Your task to perform on an android device: Open calendar and show me the second week of next month Image 0: 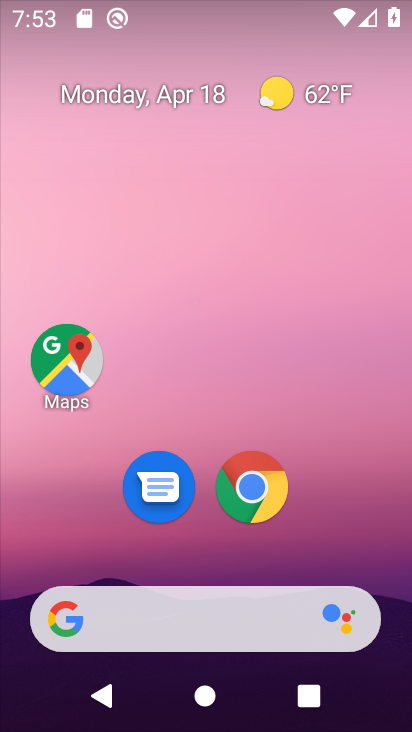
Step 0: press home button
Your task to perform on an android device: Open calendar and show me the second week of next month Image 1: 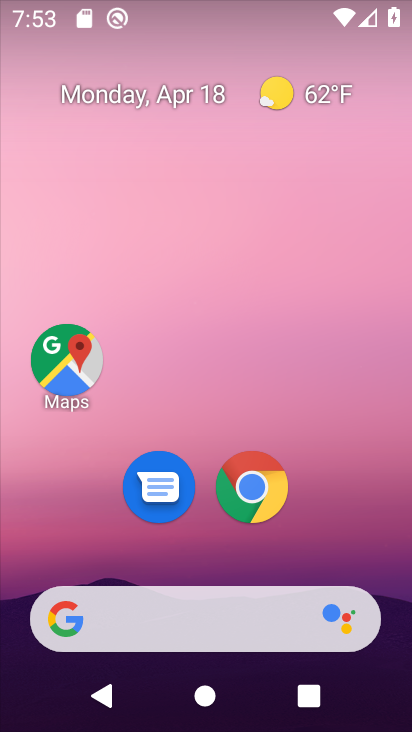
Step 1: drag from (214, 531) to (266, 107)
Your task to perform on an android device: Open calendar and show me the second week of next month Image 2: 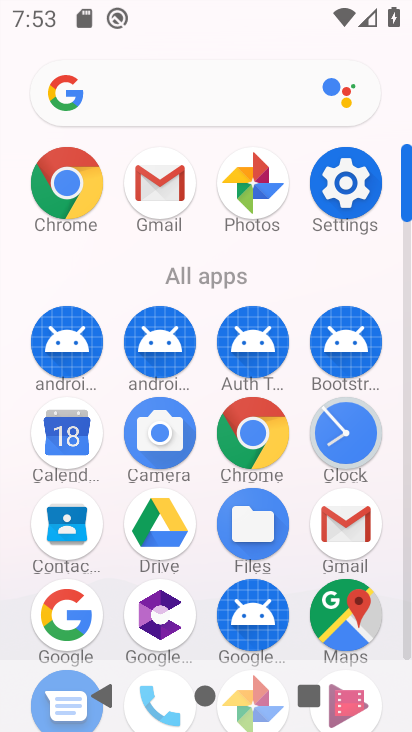
Step 2: click (70, 434)
Your task to perform on an android device: Open calendar and show me the second week of next month Image 3: 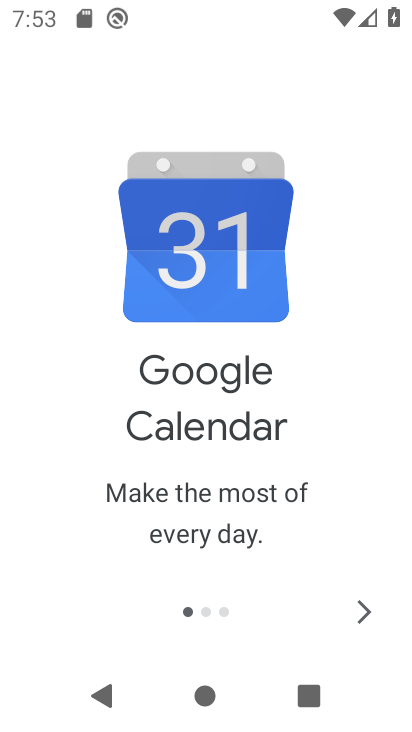
Step 3: click (356, 609)
Your task to perform on an android device: Open calendar and show me the second week of next month Image 4: 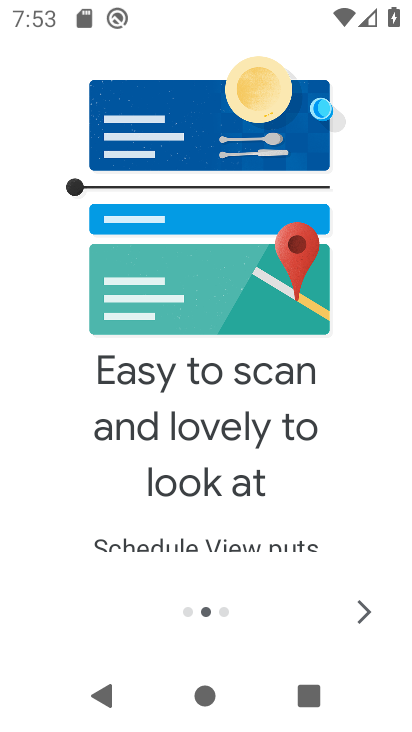
Step 4: click (356, 609)
Your task to perform on an android device: Open calendar and show me the second week of next month Image 5: 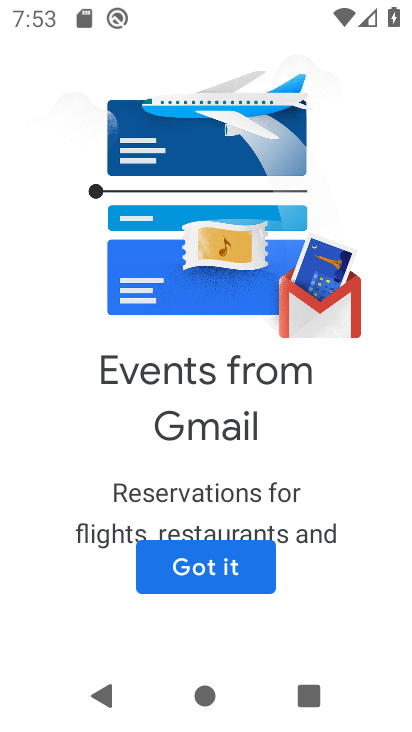
Step 5: click (218, 565)
Your task to perform on an android device: Open calendar and show me the second week of next month Image 6: 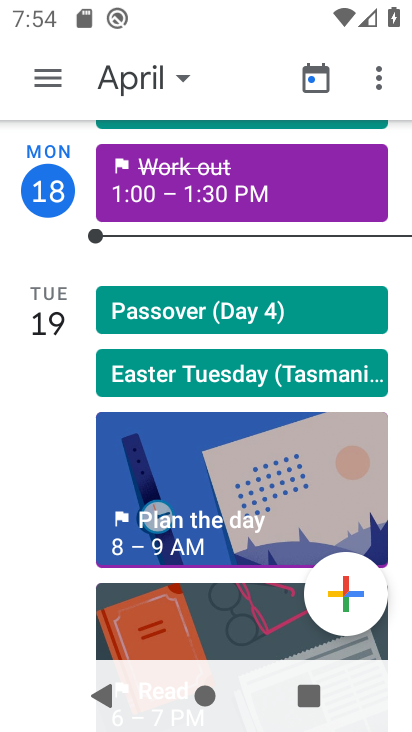
Step 6: click (43, 72)
Your task to perform on an android device: Open calendar and show me the second week of next month Image 7: 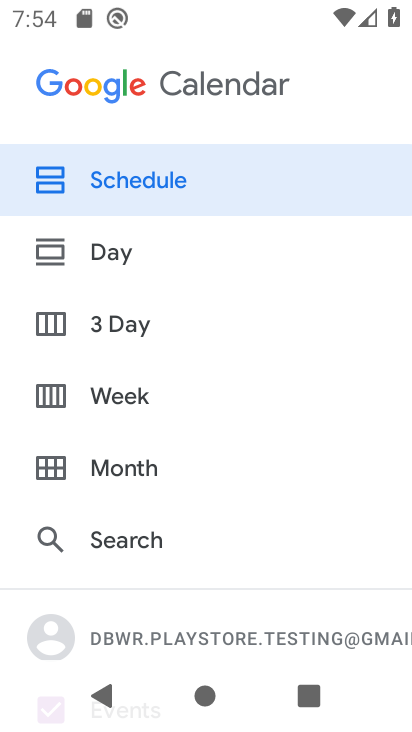
Step 7: click (74, 392)
Your task to perform on an android device: Open calendar and show me the second week of next month Image 8: 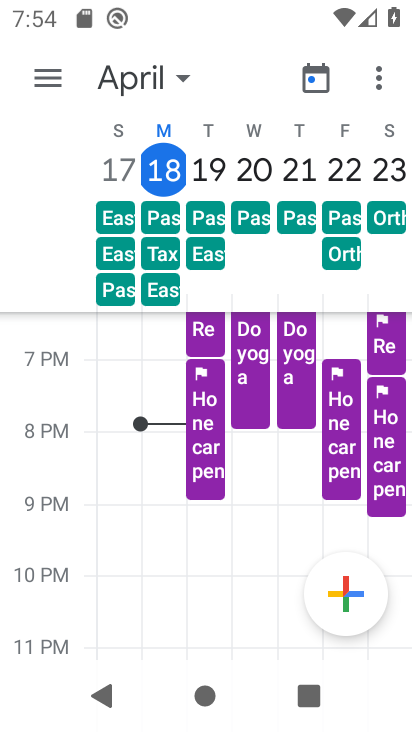
Step 8: drag from (394, 165) to (74, 140)
Your task to perform on an android device: Open calendar and show me the second week of next month Image 9: 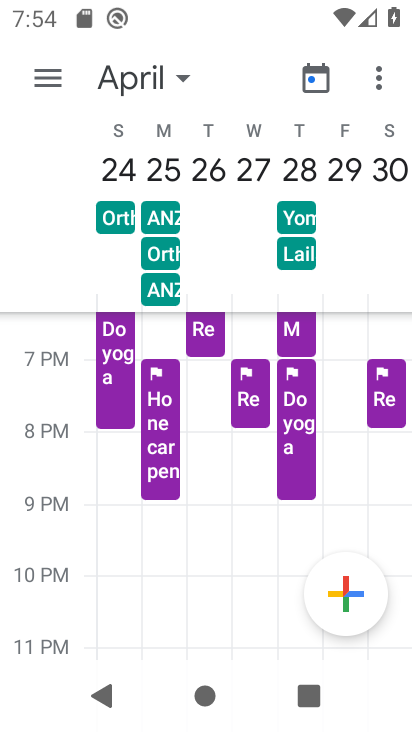
Step 9: drag from (382, 162) to (39, 149)
Your task to perform on an android device: Open calendar and show me the second week of next month Image 10: 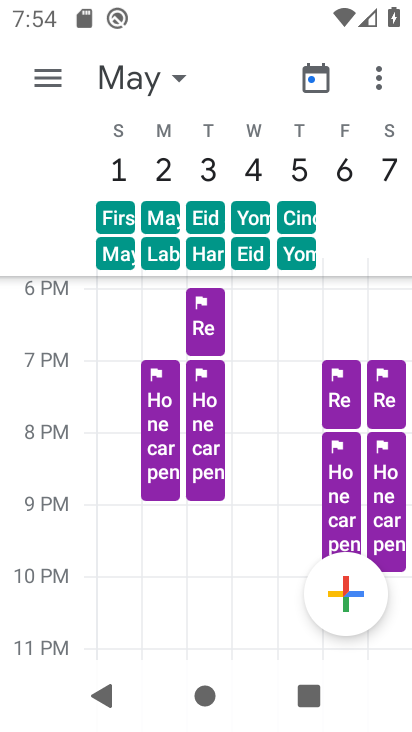
Step 10: drag from (381, 166) to (85, 166)
Your task to perform on an android device: Open calendar and show me the second week of next month Image 11: 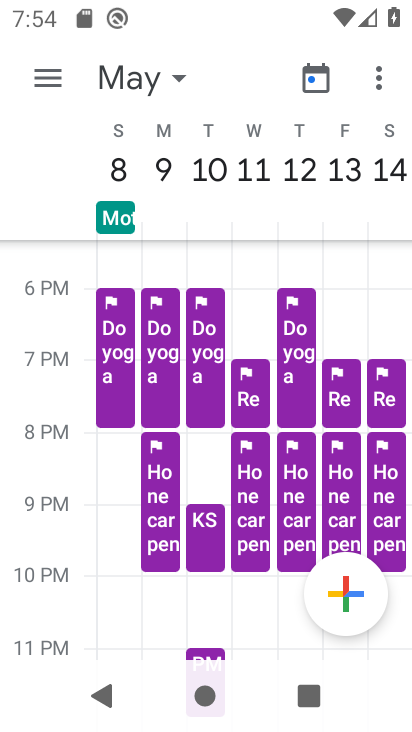
Step 11: click (118, 165)
Your task to perform on an android device: Open calendar and show me the second week of next month Image 12: 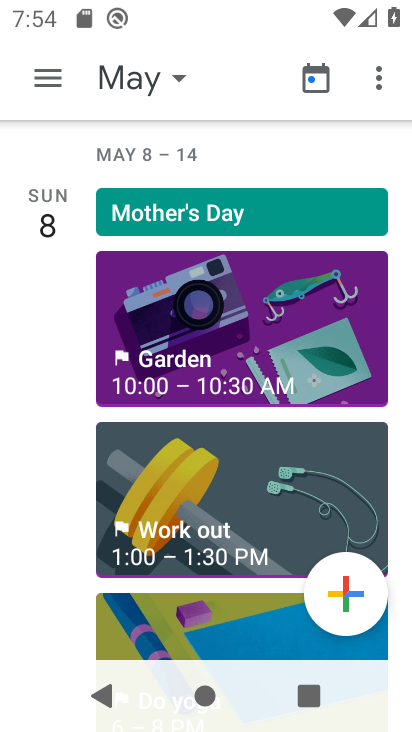
Step 12: task complete